Your task to perform on an android device: View the shopping cart on target.com. Image 0: 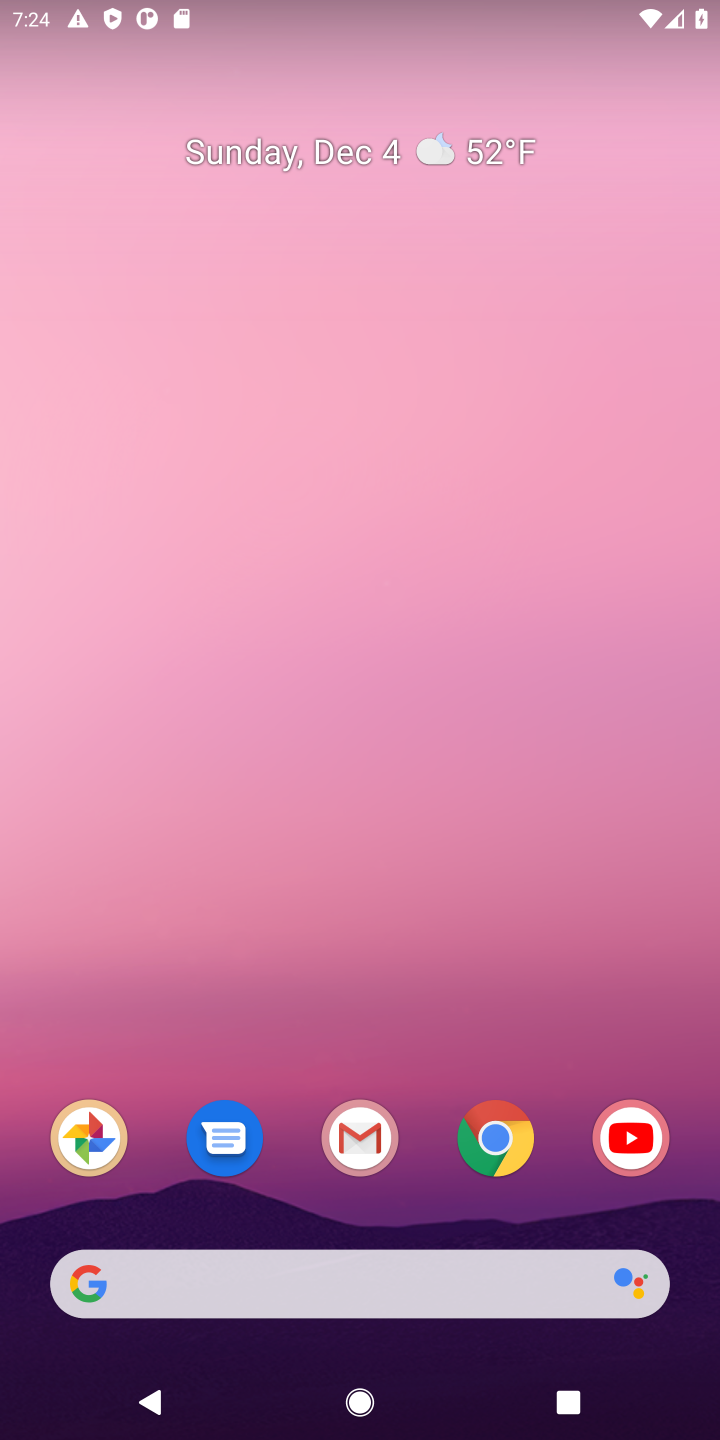
Step 0: click (485, 1130)
Your task to perform on an android device: View the shopping cart on target.com. Image 1: 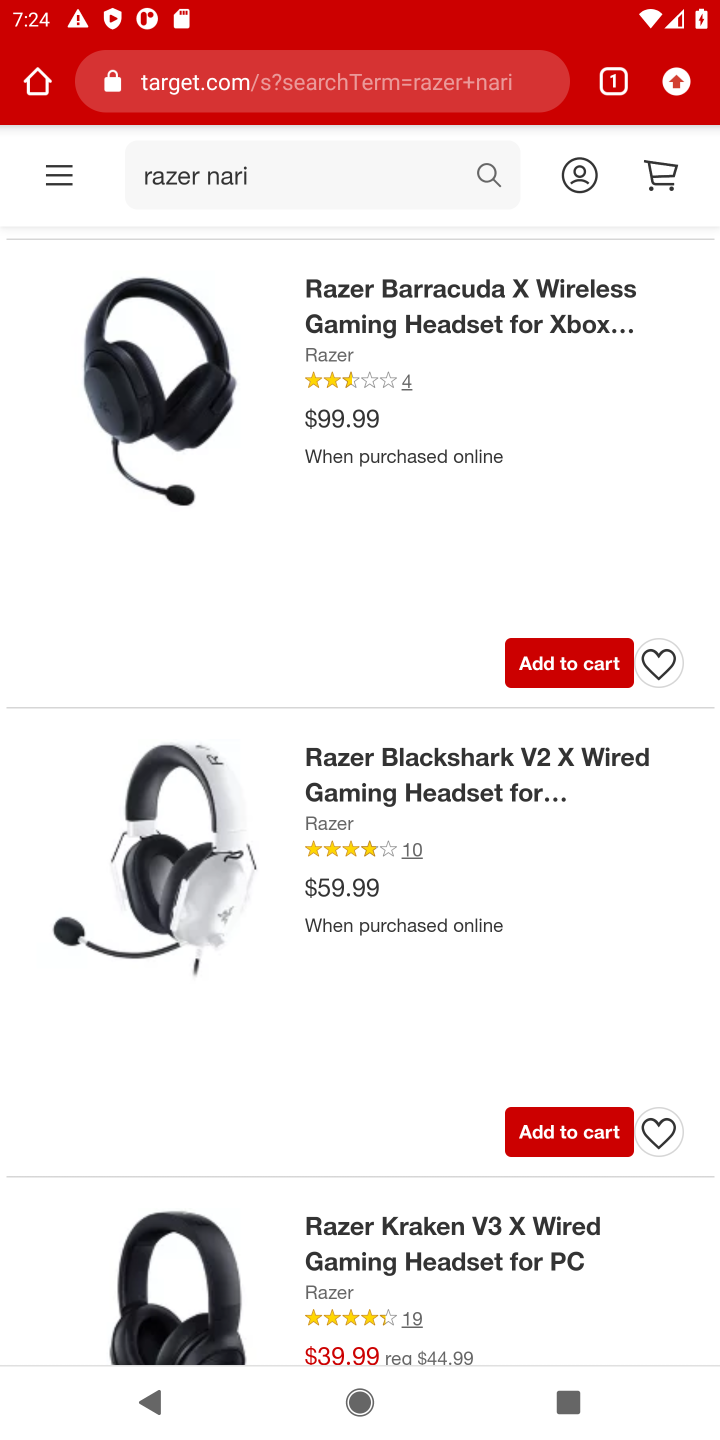
Step 1: click (654, 164)
Your task to perform on an android device: View the shopping cart on target.com. Image 2: 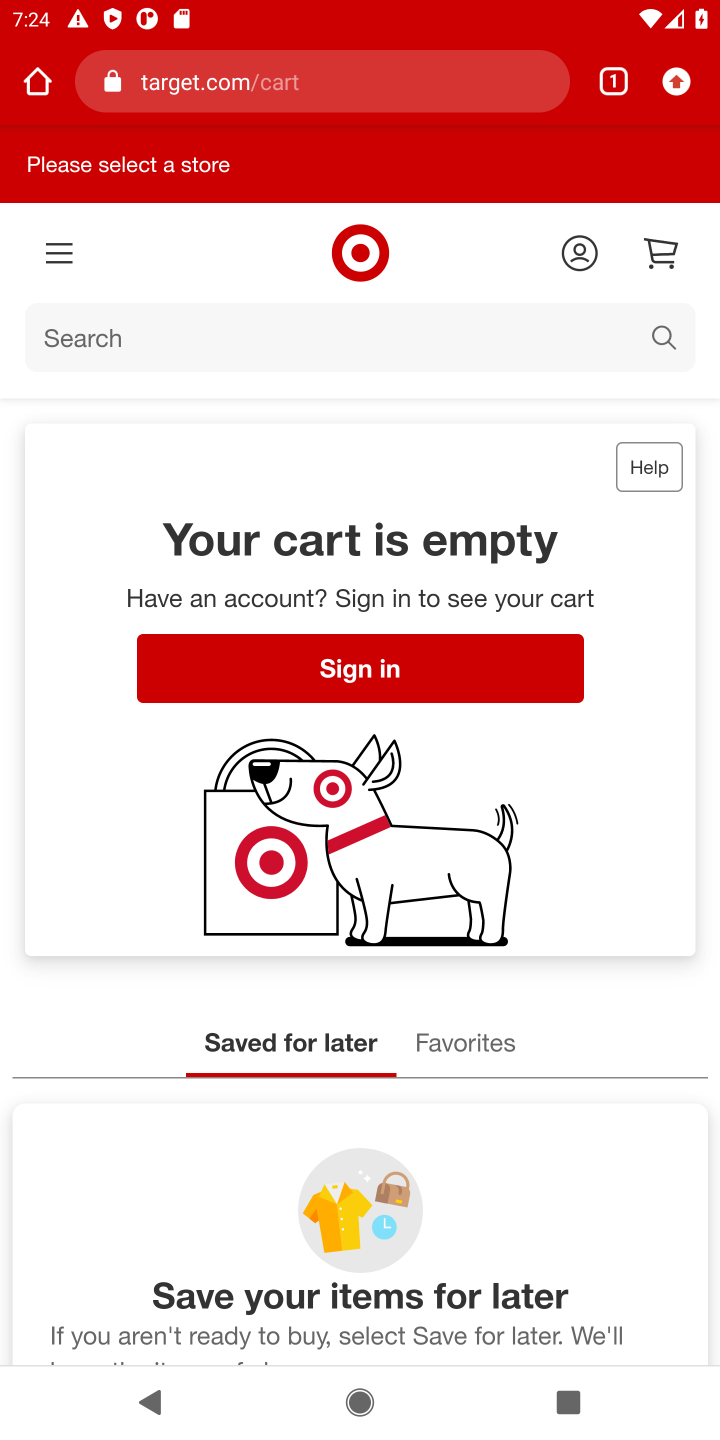
Step 2: task complete